Your task to perform on an android device: Go to Reddit.com Image 0: 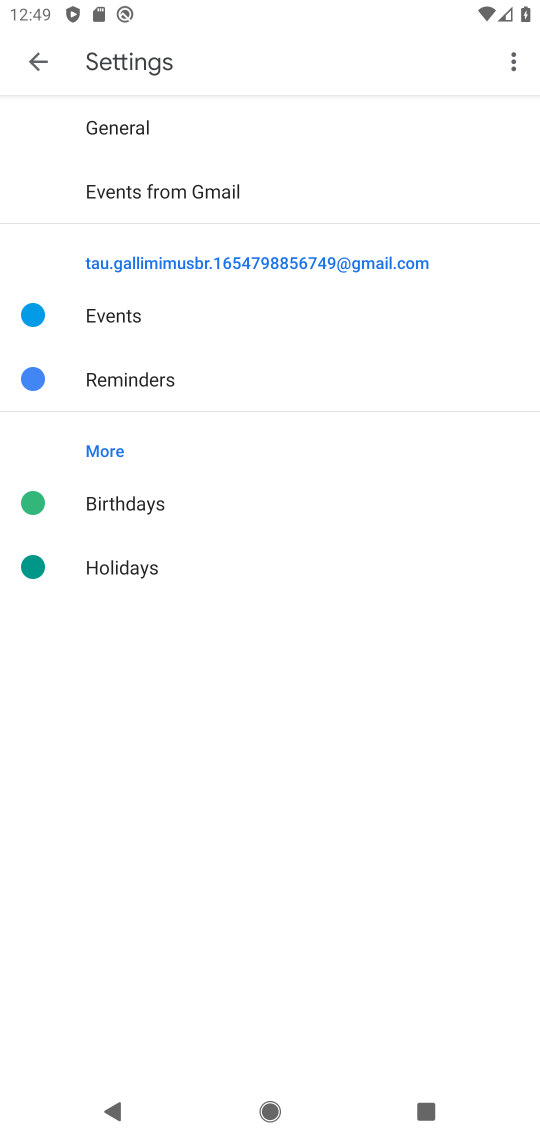
Step 0: press home button
Your task to perform on an android device: Go to Reddit.com Image 1: 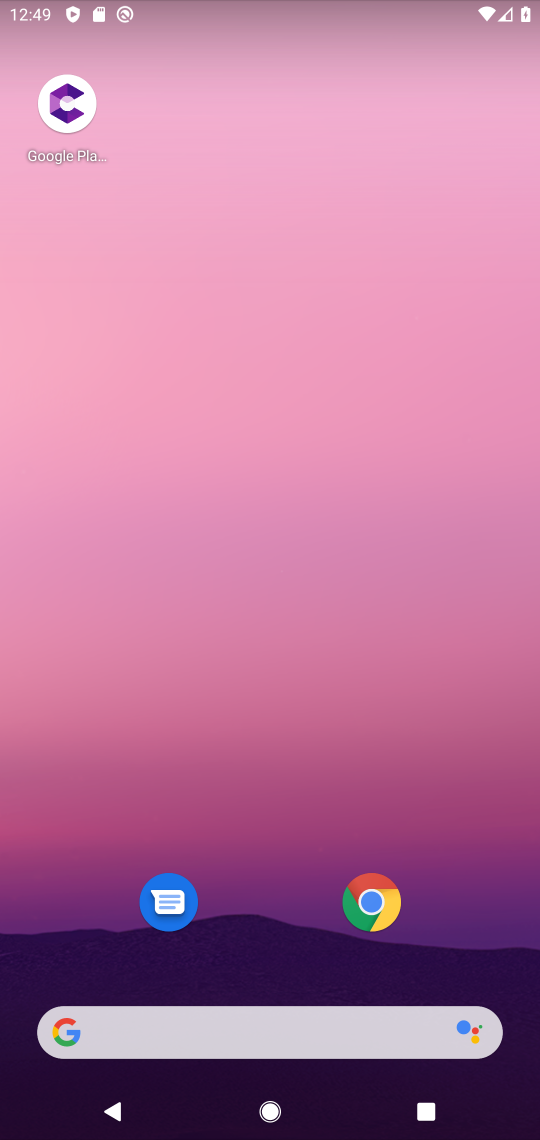
Step 1: drag from (254, 909) to (246, 179)
Your task to perform on an android device: Go to Reddit.com Image 2: 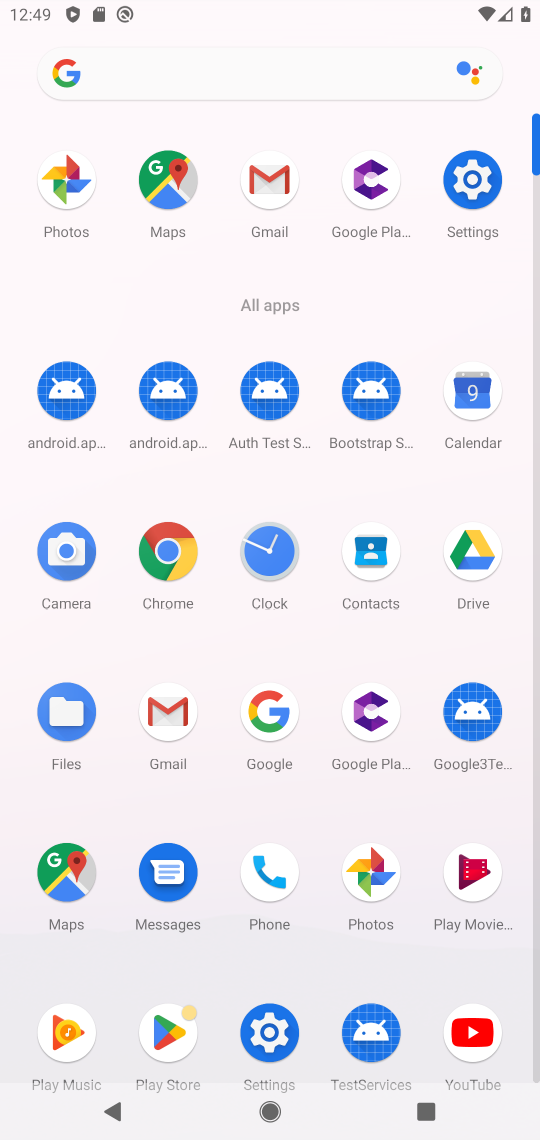
Step 2: click (259, 717)
Your task to perform on an android device: Go to Reddit.com Image 3: 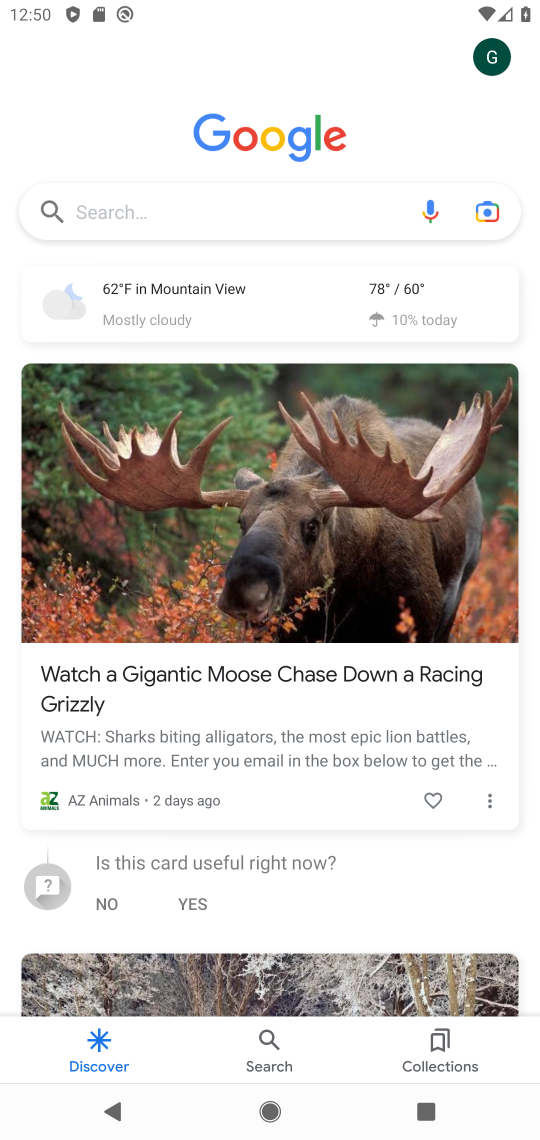
Step 3: click (113, 210)
Your task to perform on an android device: Go to Reddit.com Image 4: 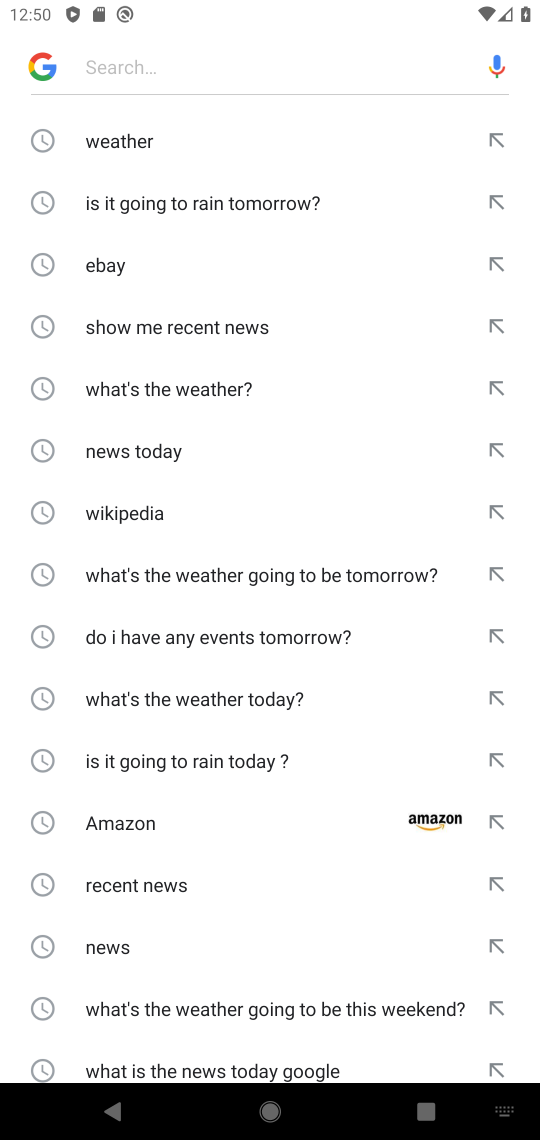
Step 4: drag from (132, 1017) to (125, 419)
Your task to perform on an android device: Go to Reddit.com Image 5: 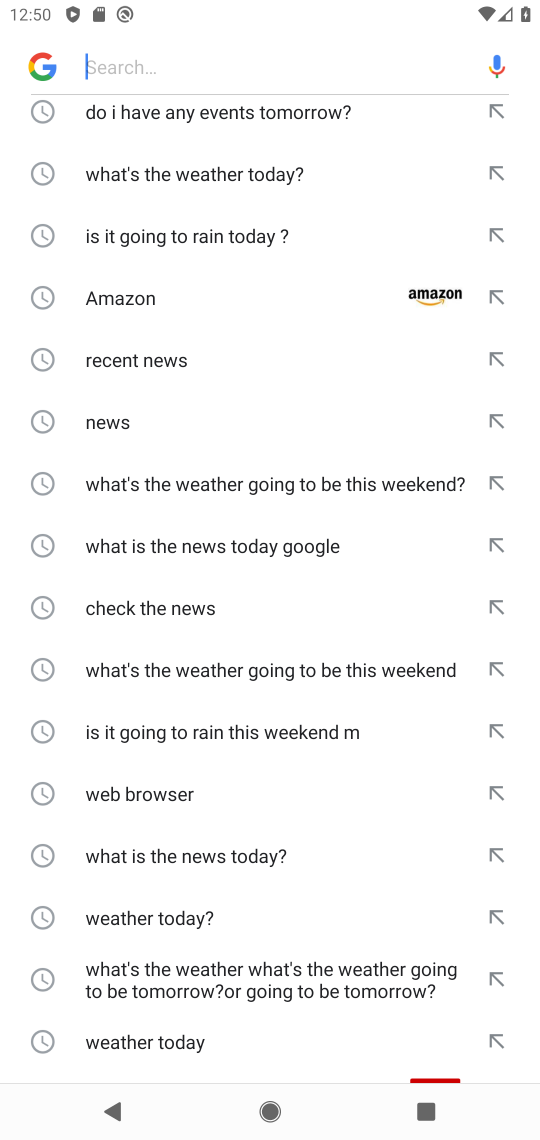
Step 5: drag from (163, 1032) to (150, 612)
Your task to perform on an android device: Go to Reddit.com Image 6: 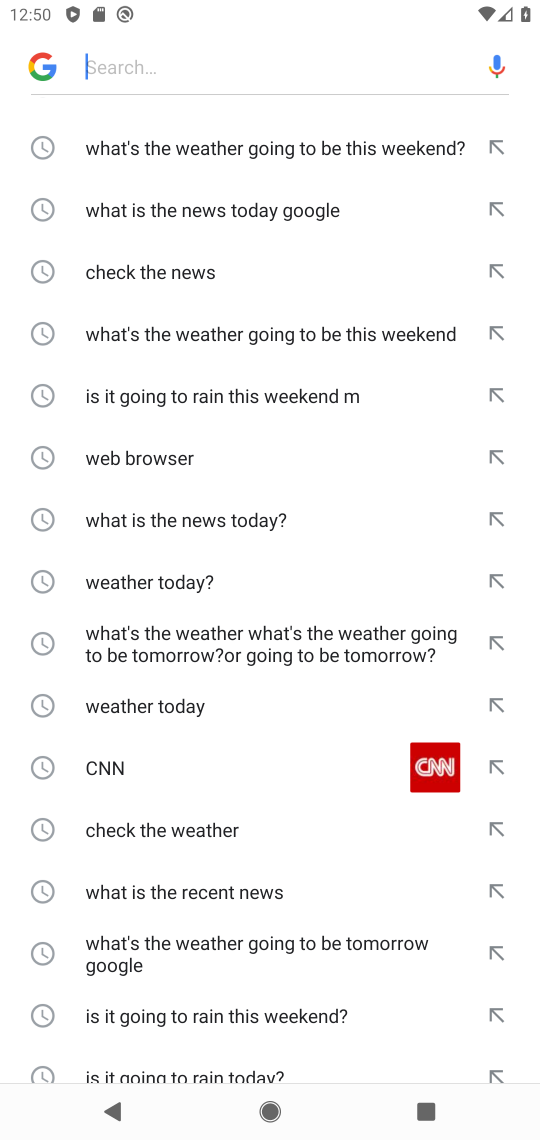
Step 6: drag from (136, 1043) to (131, 594)
Your task to perform on an android device: Go to Reddit.com Image 7: 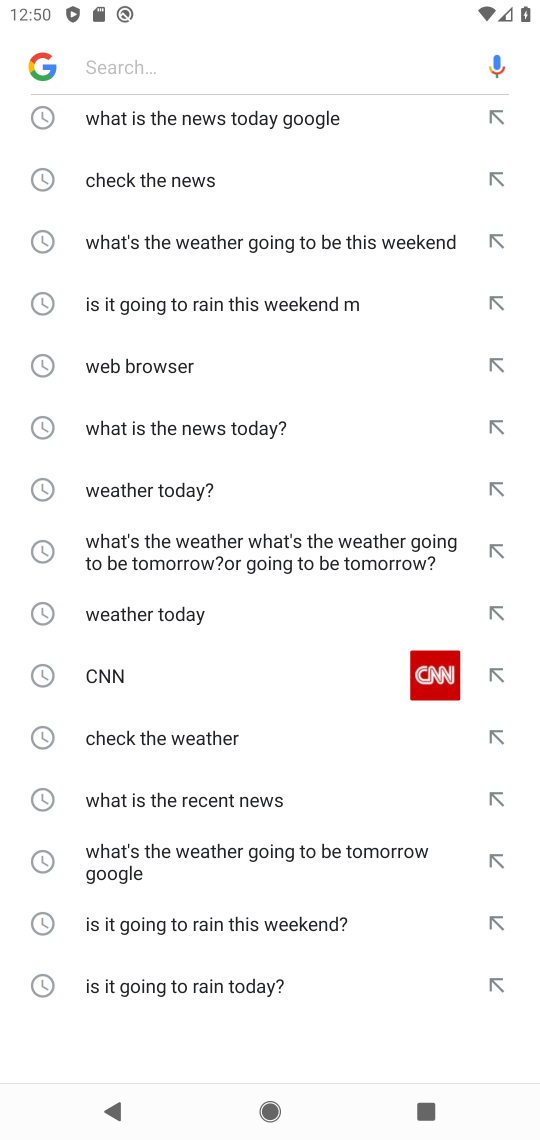
Step 7: drag from (139, 998) to (132, 511)
Your task to perform on an android device: Go to Reddit.com Image 8: 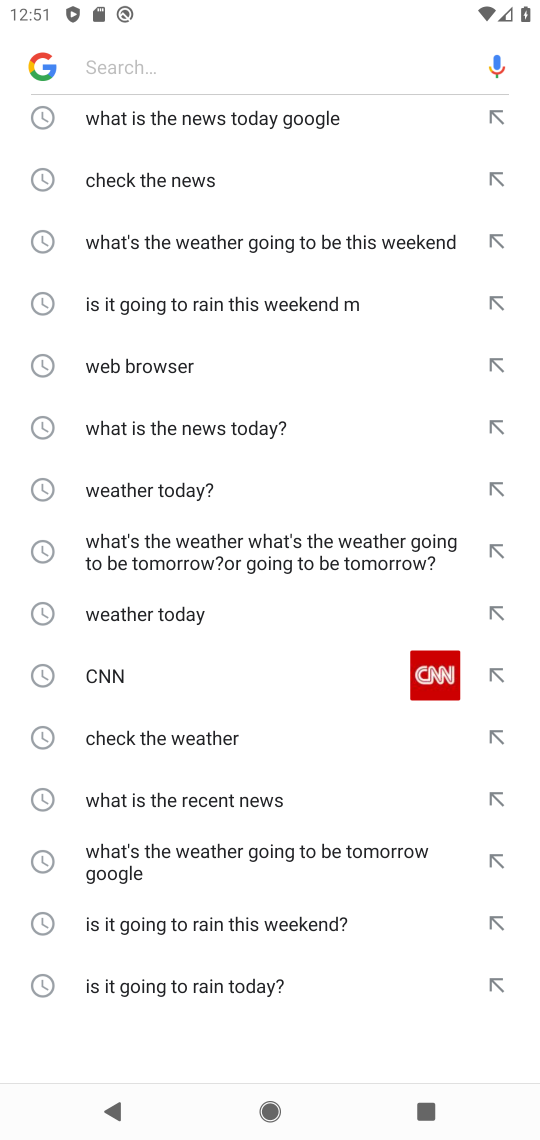
Step 8: type "Reddit.com"
Your task to perform on an android device: Go to Reddit.com Image 9: 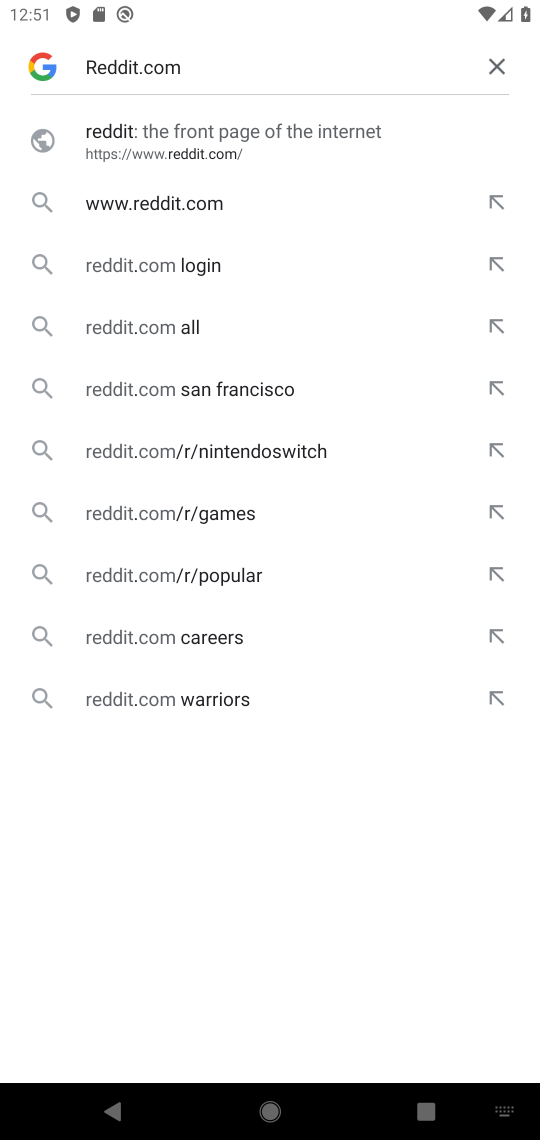
Step 9: click (148, 194)
Your task to perform on an android device: Go to Reddit.com Image 10: 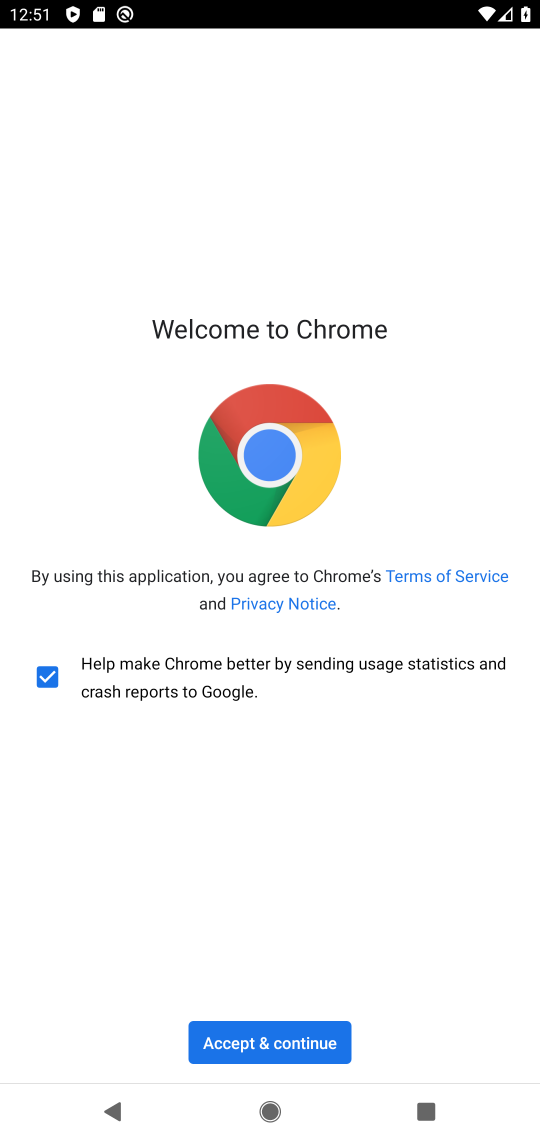
Step 10: click (219, 1033)
Your task to perform on an android device: Go to Reddit.com Image 11: 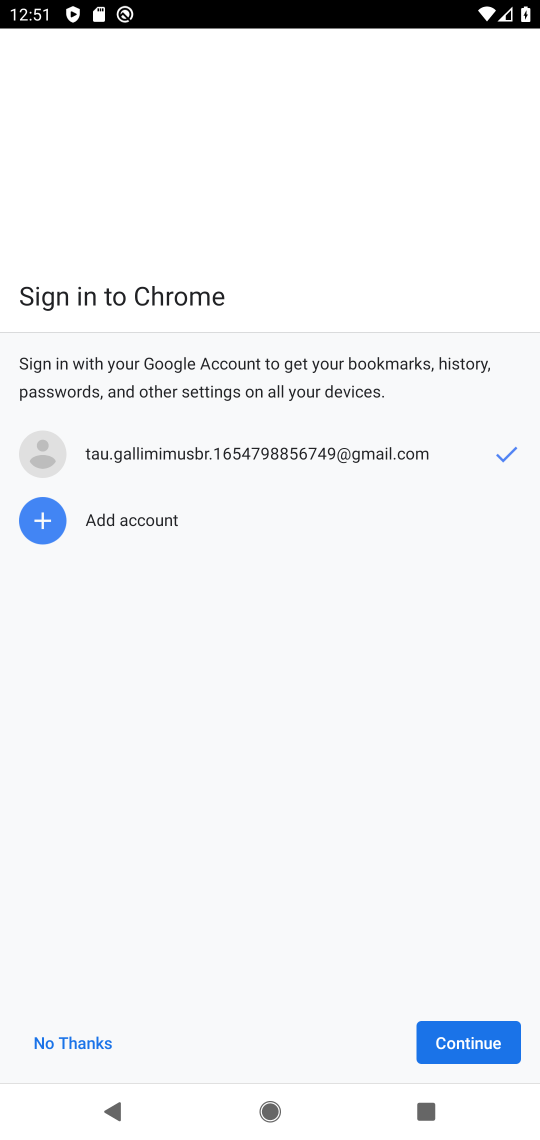
Step 11: click (468, 1052)
Your task to perform on an android device: Go to Reddit.com Image 12: 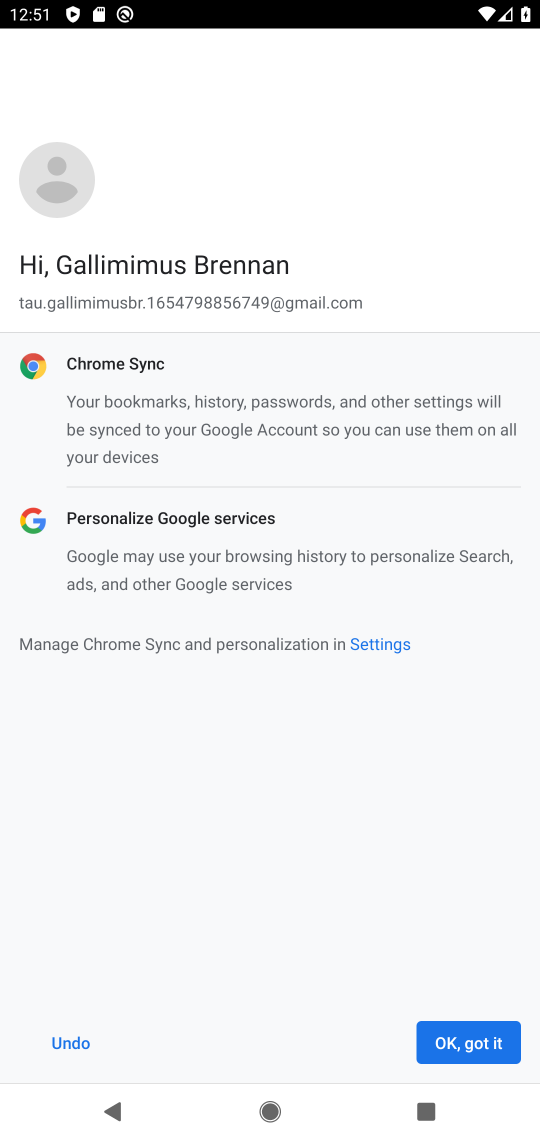
Step 12: click (468, 1052)
Your task to perform on an android device: Go to Reddit.com Image 13: 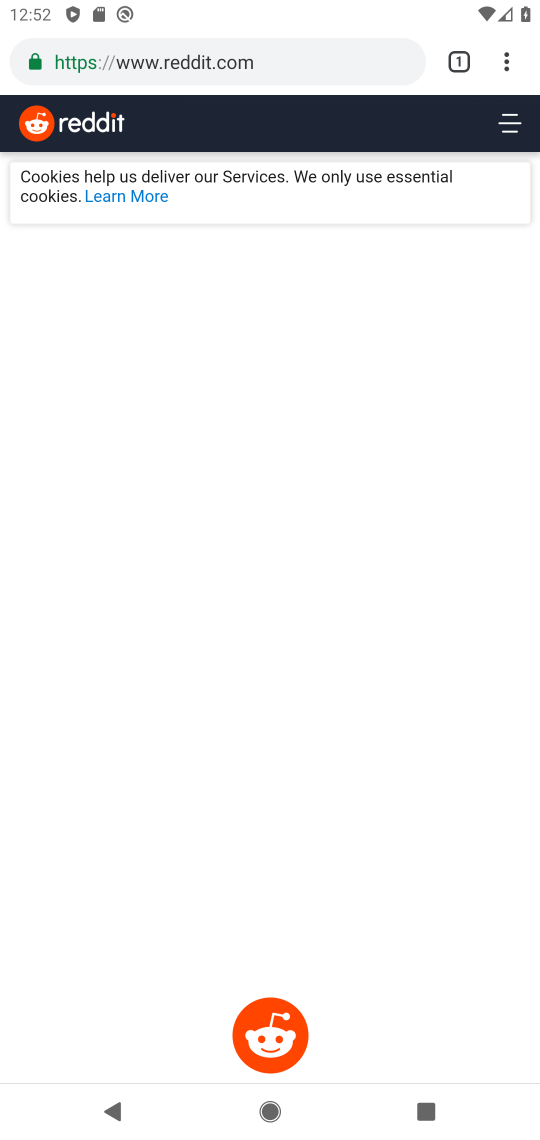
Step 13: task complete